Your task to perform on an android device: Go to notification settings Image 0: 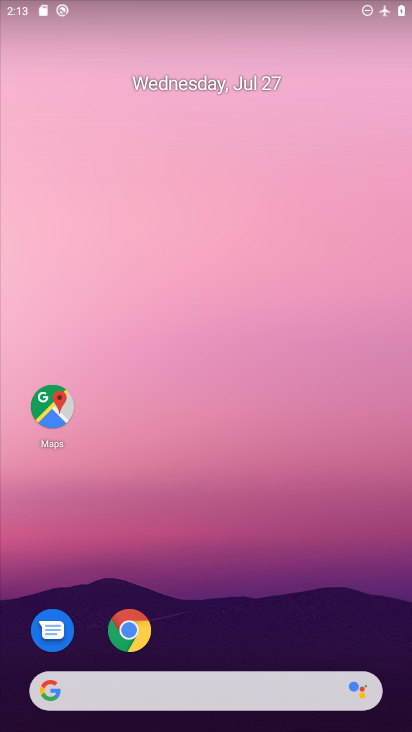
Step 0: drag from (371, 634) to (341, 170)
Your task to perform on an android device: Go to notification settings Image 1: 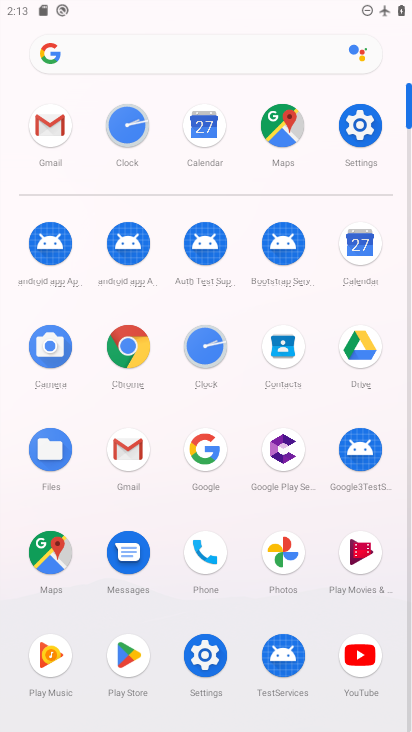
Step 1: click (206, 657)
Your task to perform on an android device: Go to notification settings Image 2: 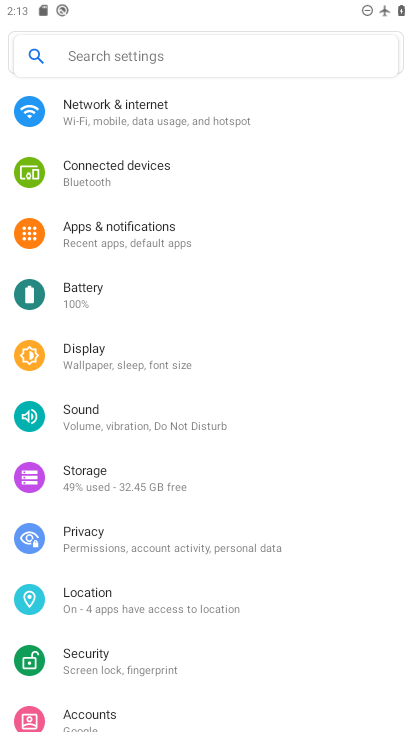
Step 2: click (130, 225)
Your task to perform on an android device: Go to notification settings Image 3: 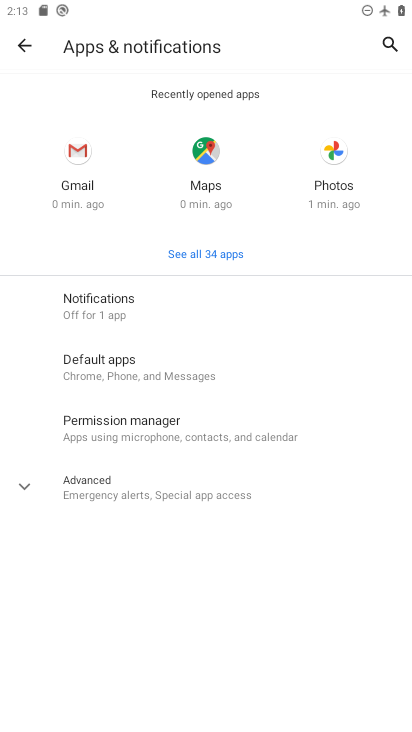
Step 3: click (93, 302)
Your task to perform on an android device: Go to notification settings Image 4: 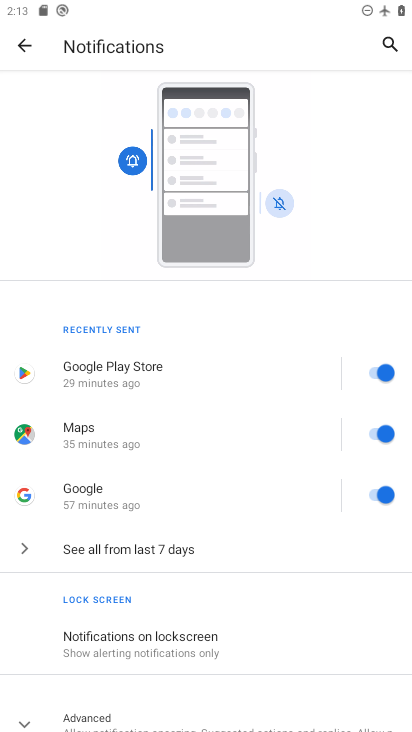
Step 4: drag from (180, 620) to (274, 212)
Your task to perform on an android device: Go to notification settings Image 5: 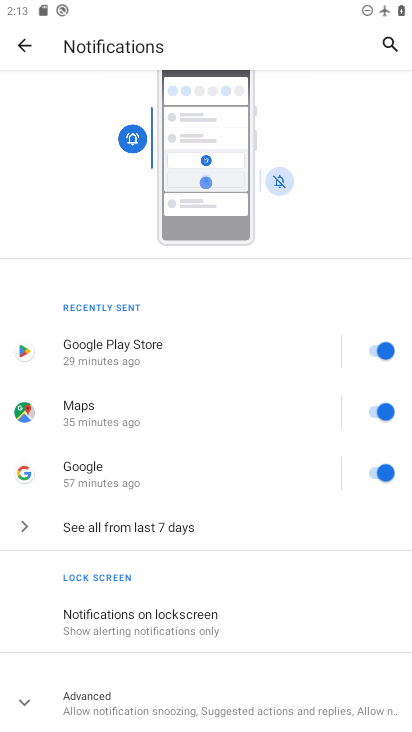
Step 5: click (25, 705)
Your task to perform on an android device: Go to notification settings Image 6: 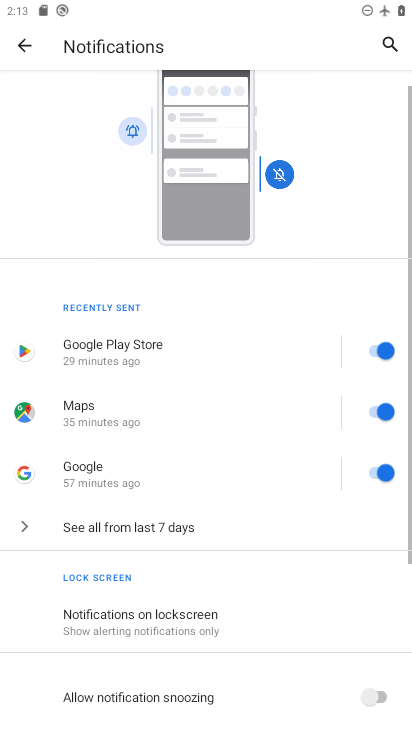
Step 6: task complete